Your task to perform on an android device: Go to battery settings Image 0: 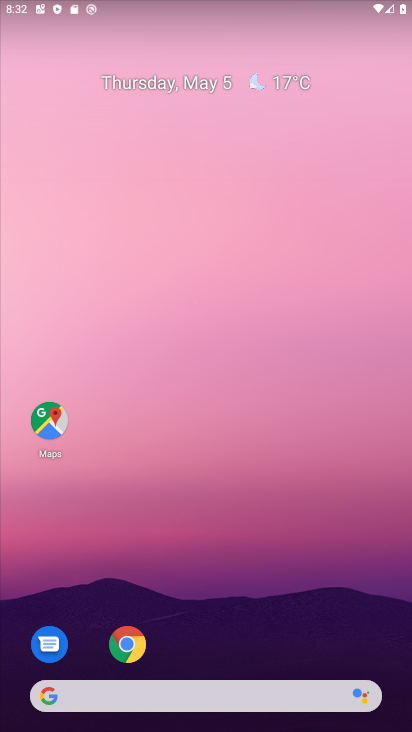
Step 0: drag from (210, 629) to (248, 332)
Your task to perform on an android device: Go to battery settings Image 1: 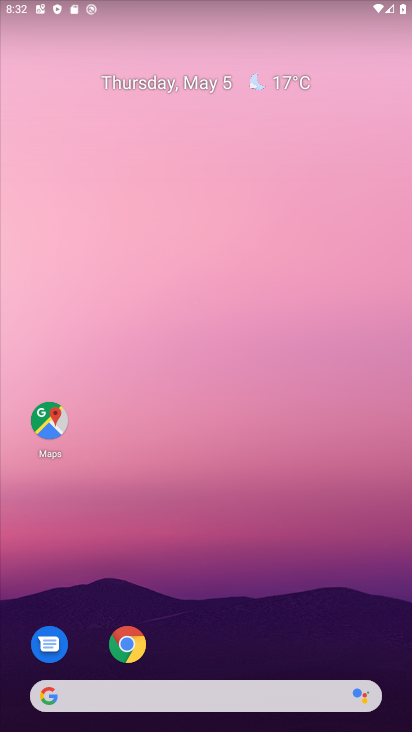
Step 1: drag from (236, 614) to (210, 273)
Your task to perform on an android device: Go to battery settings Image 2: 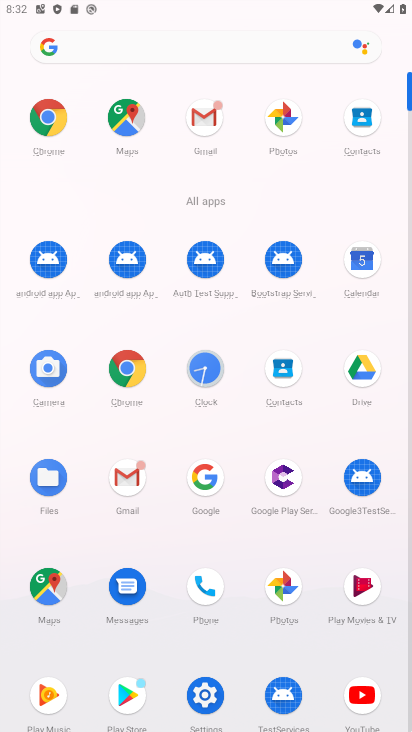
Step 2: click (209, 706)
Your task to perform on an android device: Go to battery settings Image 3: 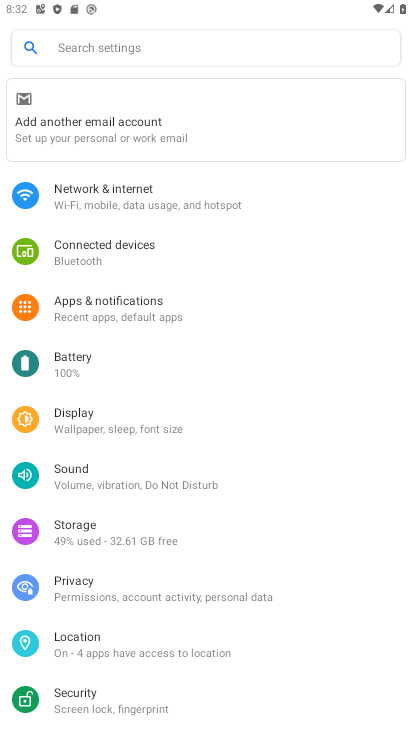
Step 3: click (254, 370)
Your task to perform on an android device: Go to battery settings Image 4: 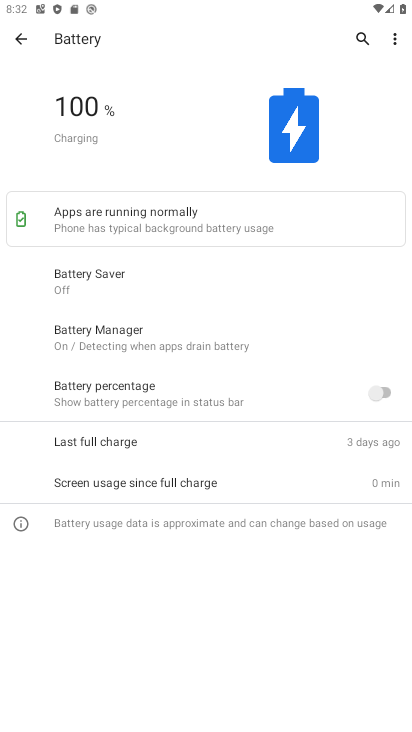
Step 4: task complete